Your task to perform on an android device: Open privacy settings Image 0: 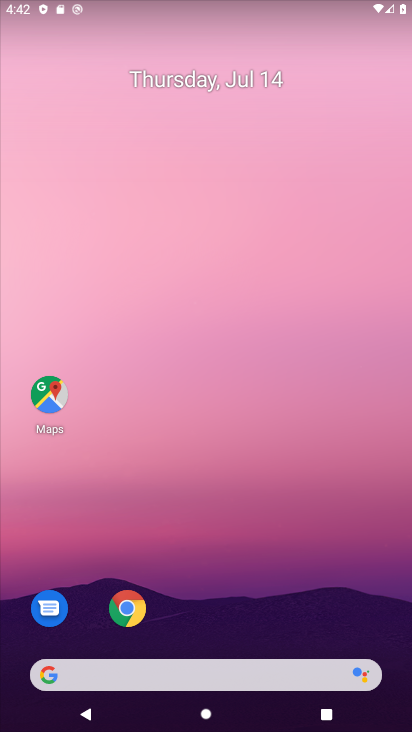
Step 0: drag from (312, 598) to (247, 57)
Your task to perform on an android device: Open privacy settings Image 1: 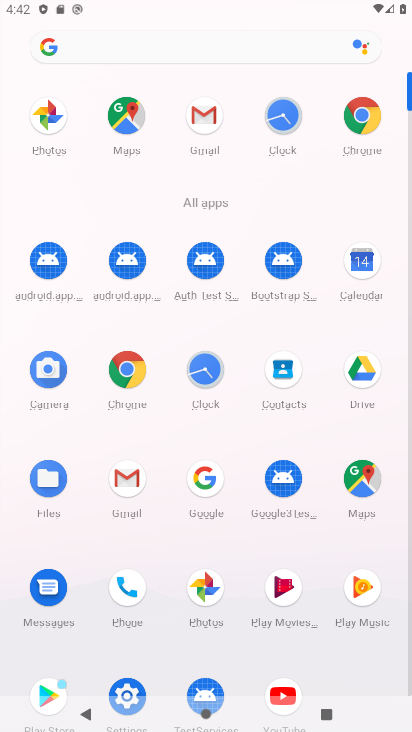
Step 1: click (130, 690)
Your task to perform on an android device: Open privacy settings Image 2: 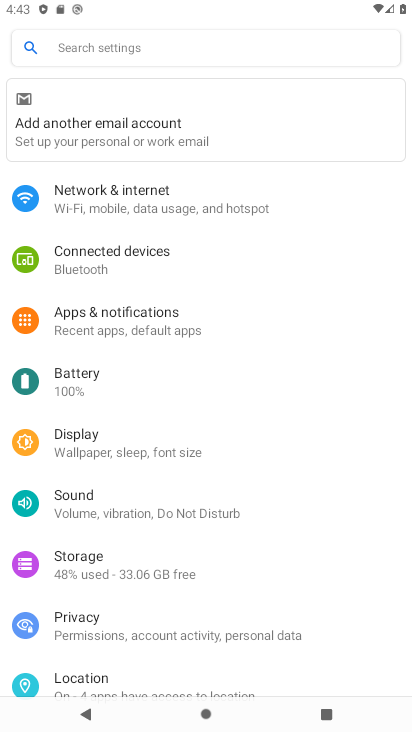
Step 2: click (137, 621)
Your task to perform on an android device: Open privacy settings Image 3: 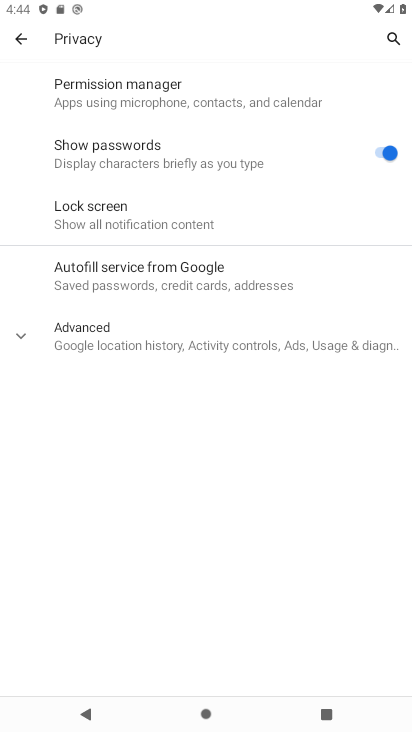
Step 3: task complete